Your task to perform on an android device: What's the weather? Image 0: 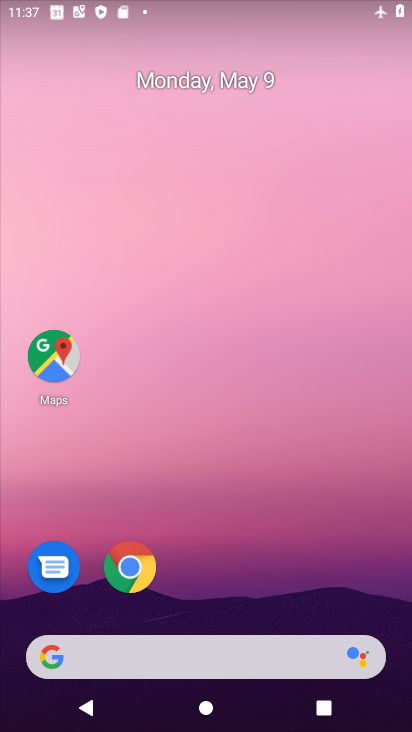
Step 0: click (230, 645)
Your task to perform on an android device: What's the weather? Image 1: 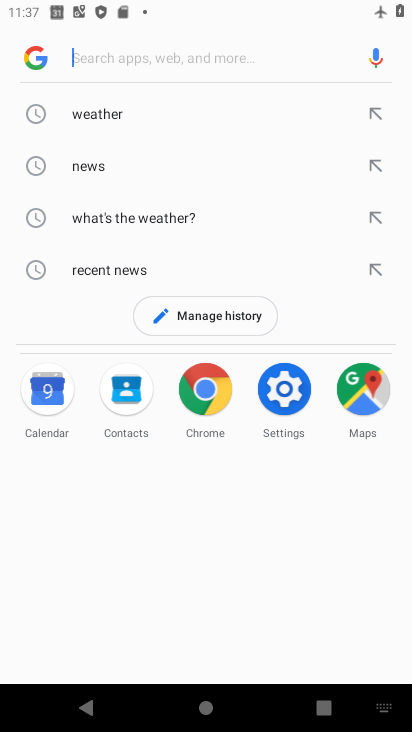
Step 1: click (181, 130)
Your task to perform on an android device: What's the weather? Image 2: 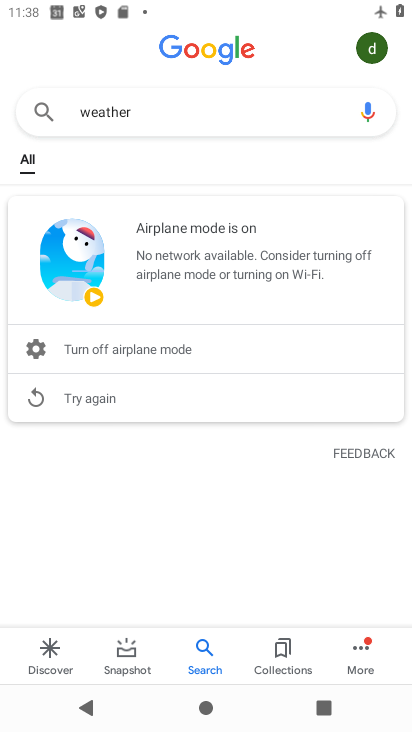
Step 2: task complete